Your task to perform on an android device: Go to internet settings Image 0: 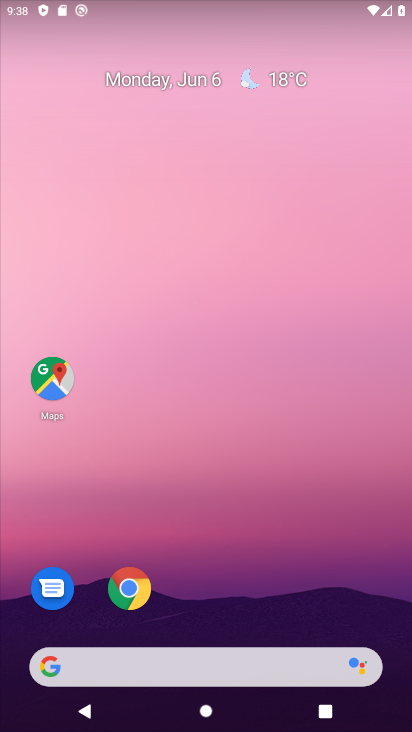
Step 0: press home button
Your task to perform on an android device: Go to internet settings Image 1: 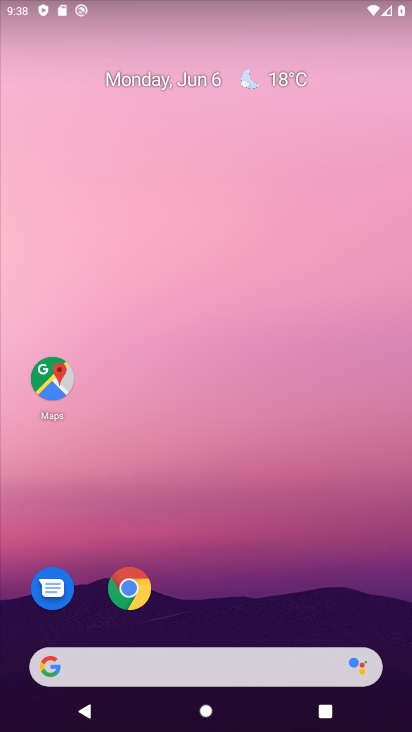
Step 1: drag from (215, 621) to (236, 24)
Your task to perform on an android device: Go to internet settings Image 2: 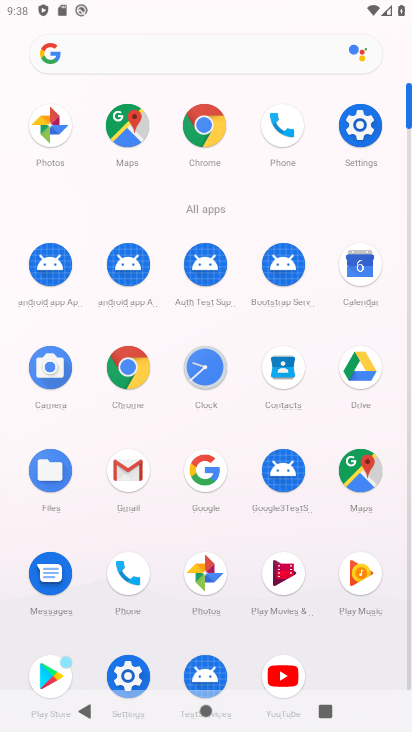
Step 2: click (357, 115)
Your task to perform on an android device: Go to internet settings Image 3: 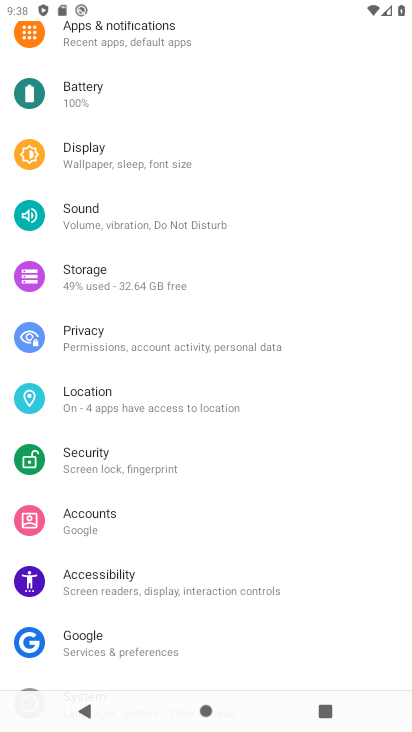
Step 3: drag from (133, 68) to (137, 662)
Your task to perform on an android device: Go to internet settings Image 4: 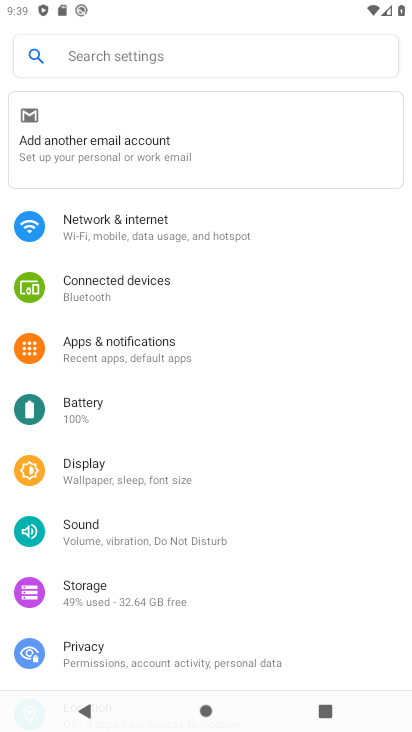
Step 4: click (138, 232)
Your task to perform on an android device: Go to internet settings Image 5: 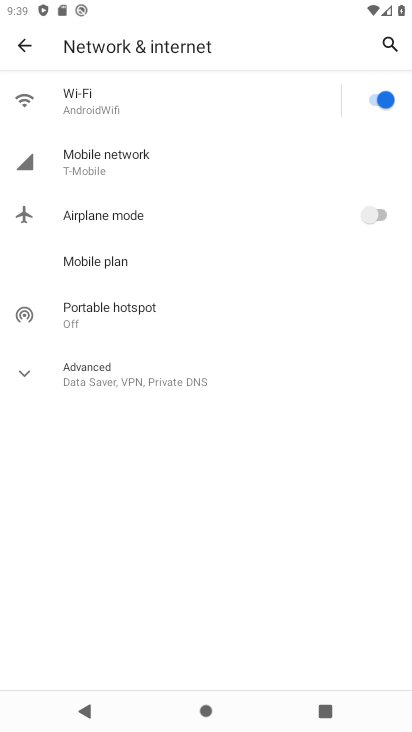
Step 5: click (22, 369)
Your task to perform on an android device: Go to internet settings Image 6: 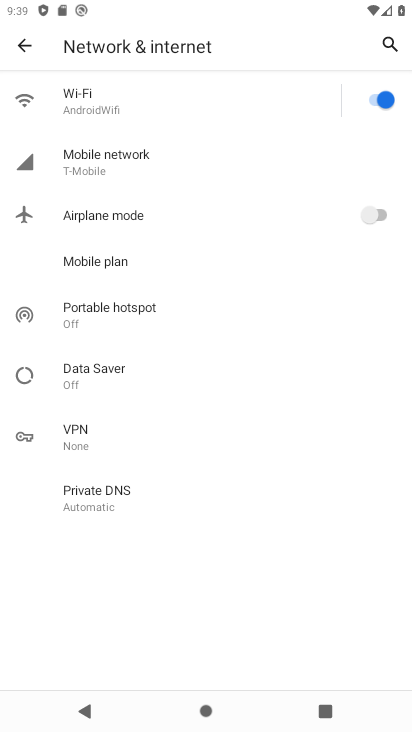
Step 6: task complete